Your task to perform on an android device: open the mobile data screen to see how much data has been used Image 0: 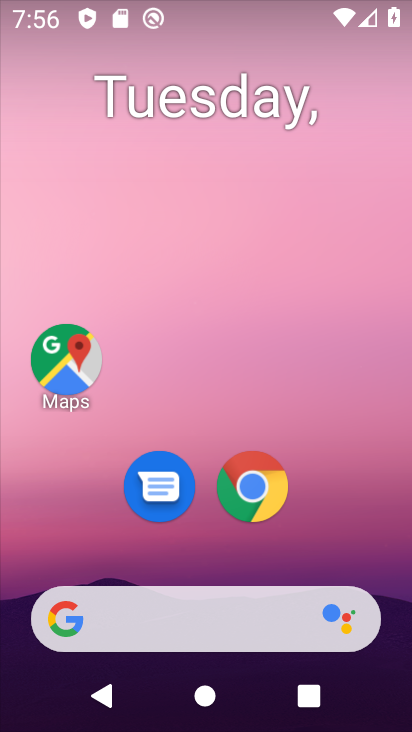
Step 0: drag from (263, 667) to (250, 111)
Your task to perform on an android device: open the mobile data screen to see how much data has been used Image 1: 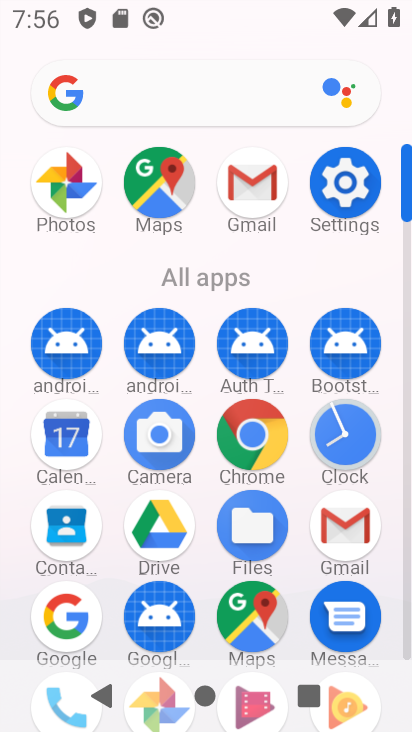
Step 1: click (331, 200)
Your task to perform on an android device: open the mobile data screen to see how much data has been used Image 2: 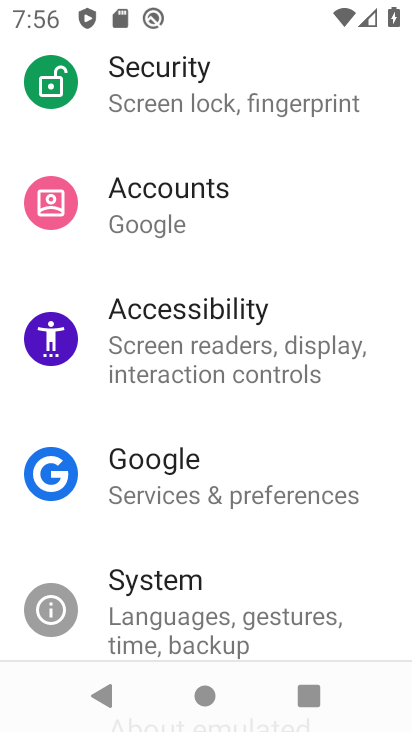
Step 2: drag from (312, 170) to (291, 570)
Your task to perform on an android device: open the mobile data screen to see how much data has been used Image 3: 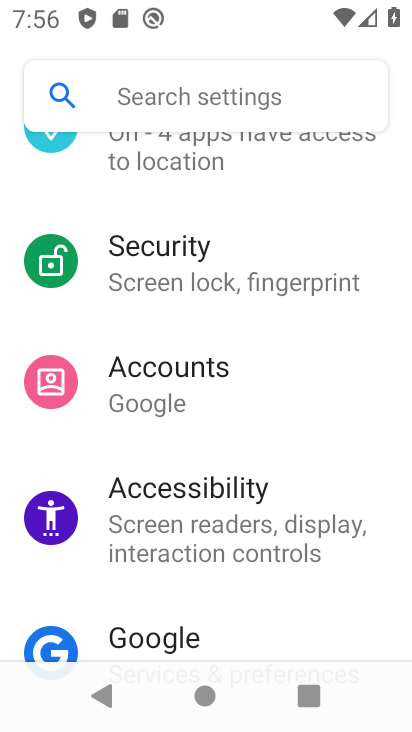
Step 3: drag from (309, 216) to (250, 674)
Your task to perform on an android device: open the mobile data screen to see how much data has been used Image 4: 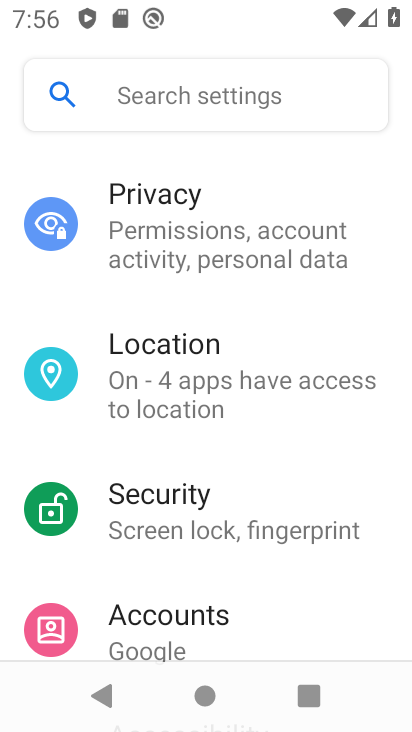
Step 4: drag from (288, 256) to (300, 646)
Your task to perform on an android device: open the mobile data screen to see how much data has been used Image 5: 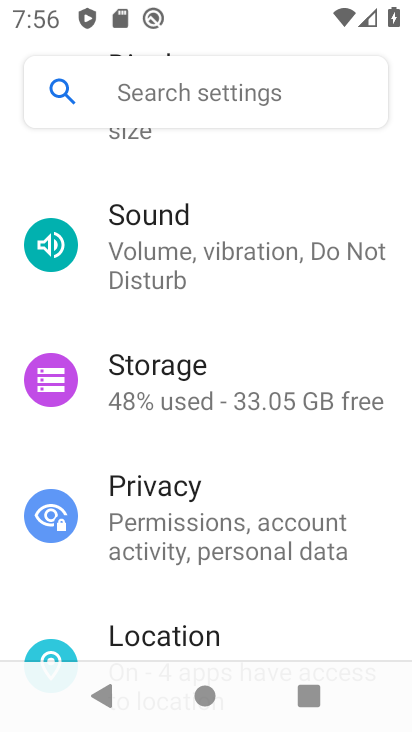
Step 5: drag from (291, 306) to (302, 677)
Your task to perform on an android device: open the mobile data screen to see how much data has been used Image 6: 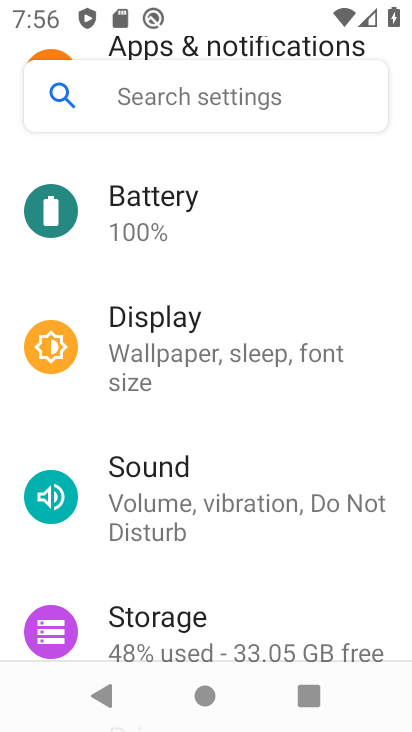
Step 6: drag from (274, 217) to (279, 731)
Your task to perform on an android device: open the mobile data screen to see how much data has been used Image 7: 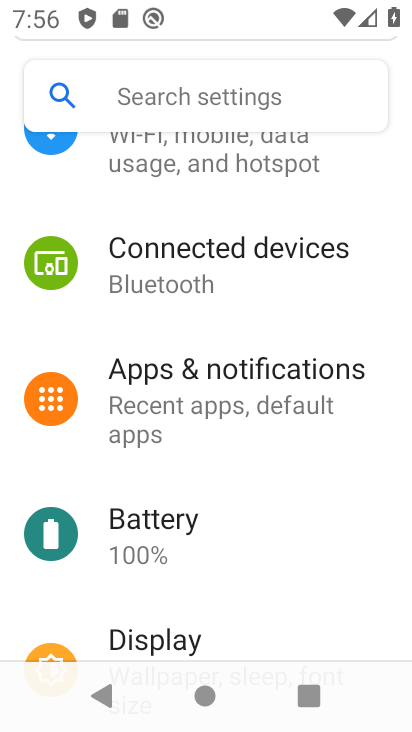
Step 7: drag from (255, 212) to (323, 712)
Your task to perform on an android device: open the mobile data screen to see how much data has been used Image 8: 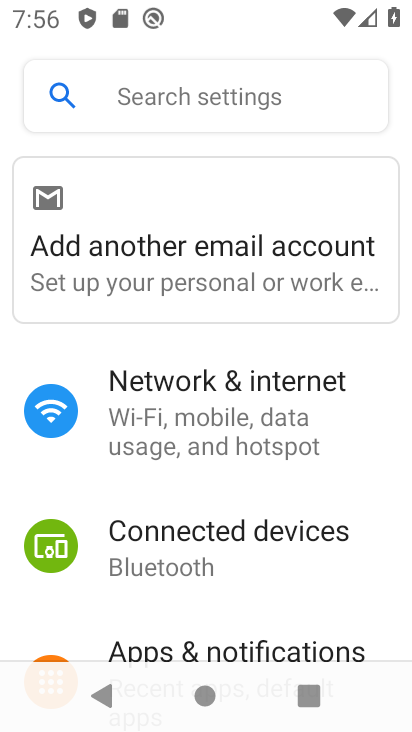
Step 8: click (284, 406)
Your task to perform on an android device: open the mobile data screen to see how much data has been used Image 9: 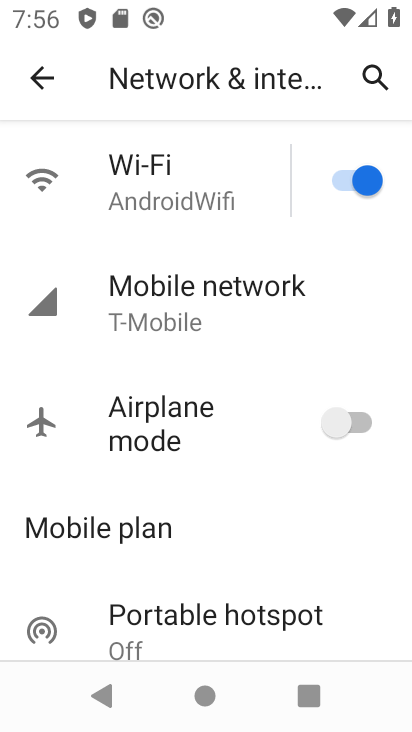
Step 9: drag from (316, 615) to (298, 207)
Your task to perform on an android device: open the mobile data screen to see how much data has been used Image 10: 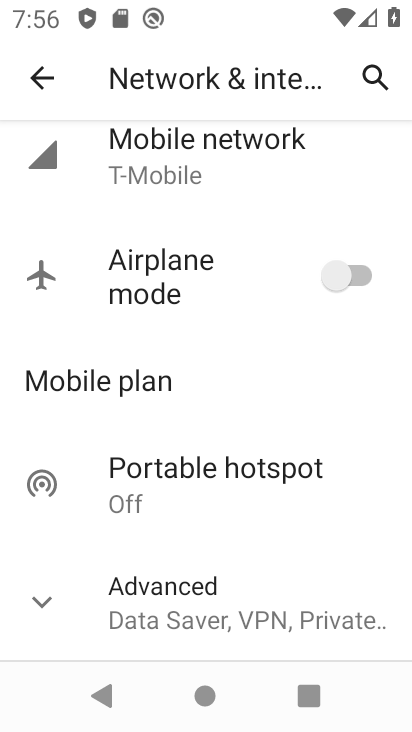
Step 10: drag from (253, 174) to (269, 549)
Your task to perform on an android device: open the mobile data screen to see how much data has been used Image 11: 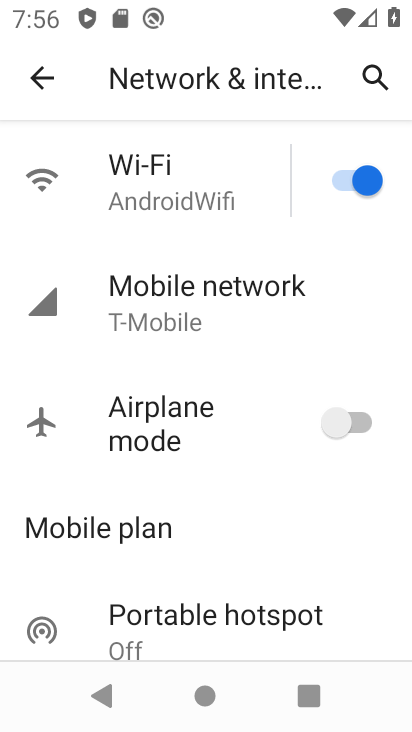
Step 11: click (244, 327)
Your task to perform on an android device: open the mobile data screen to see how much data has been used Image 12: 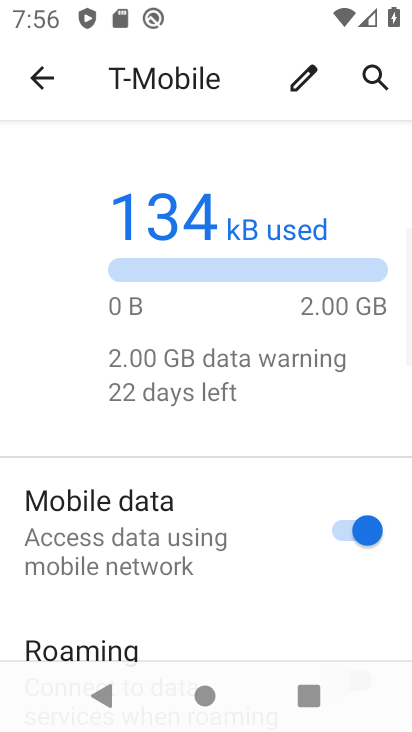
Step 12: click (271, 267)
Your task to perform on an android device: open the mobile data screen to see how much data has been used Image 13: 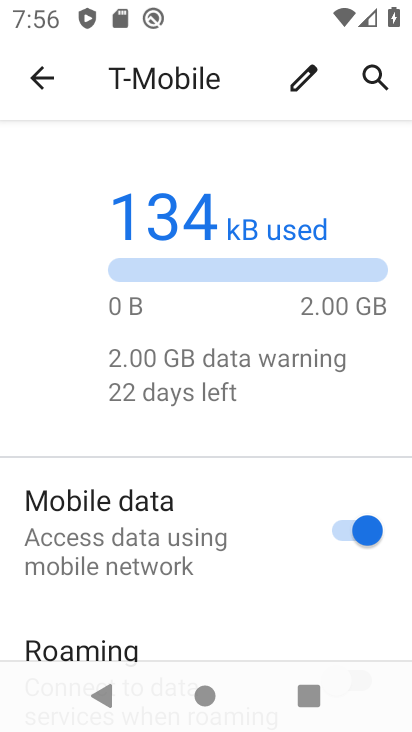
Step 13: task complete